Your task to perform on an android device: move an email to a new category in the gmail app Image 0: 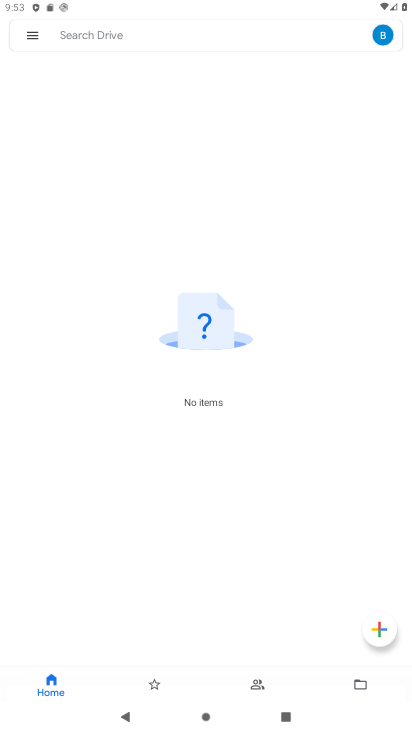
Step 0: press home button
Your task to perform on an android device: move an email to a new category in the gmail app Image 1: 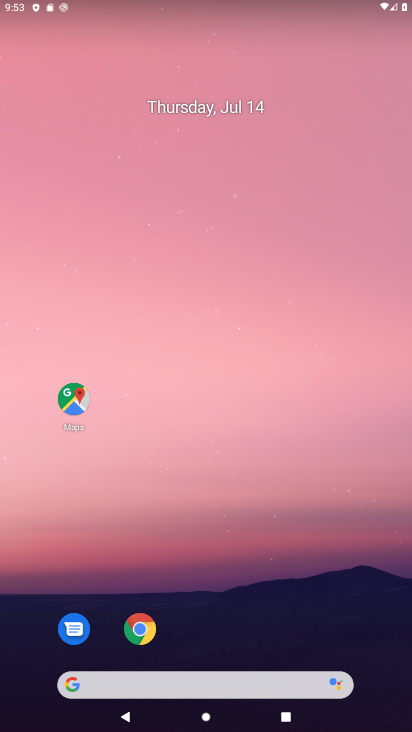
Step 1: drag from (222, 616) to (227, 105)
Your task to perform on an android device: move an email to a new category in the gmail app Image 2: 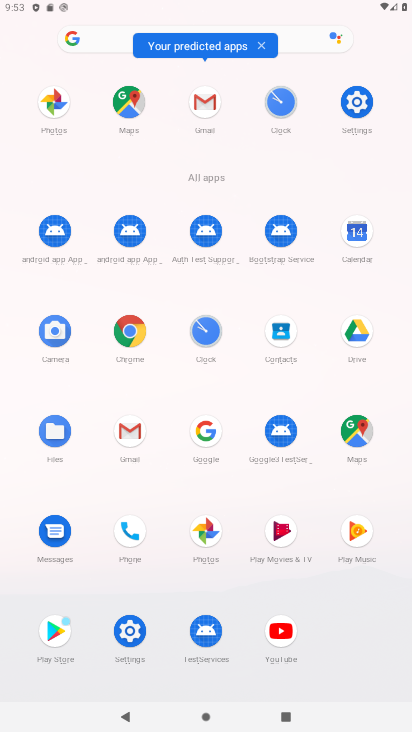
Step 2: click (133, 432)
Your task to perform on an android device: move an email to a new category in the gmail app Image 3: 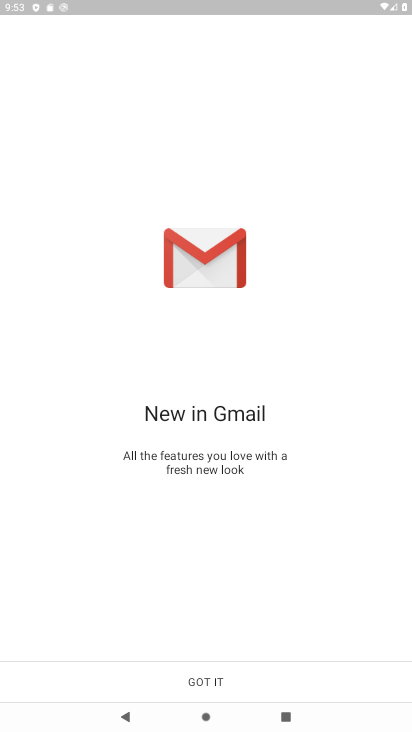
Step 3: click (223, 682)
Your task to perform on an android device: move an email to a new category in the gmail app Image 4: 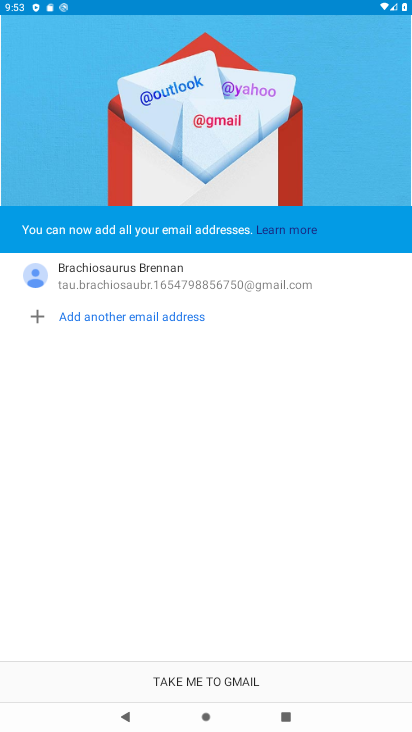
Step 4: click (223, 682)
Your task to perform on an android device: move an email to a new category in the gmail app Image 5: 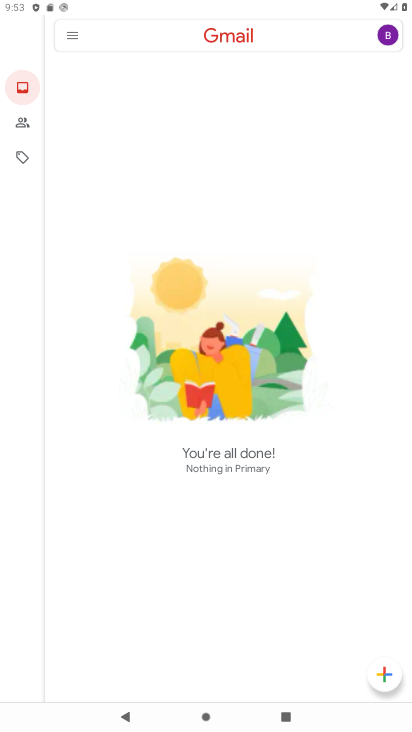
Step 5: click (28, 40)
Your task to perform on an android device: move an email to a new category in the gmail app Image 6: 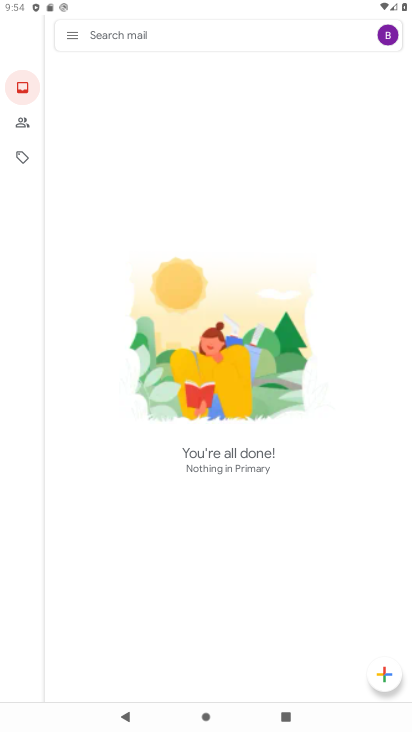
Step 6: click (74, 36)
Your task to perform on an android device: move an email to a new category in the gmail app Image 7: 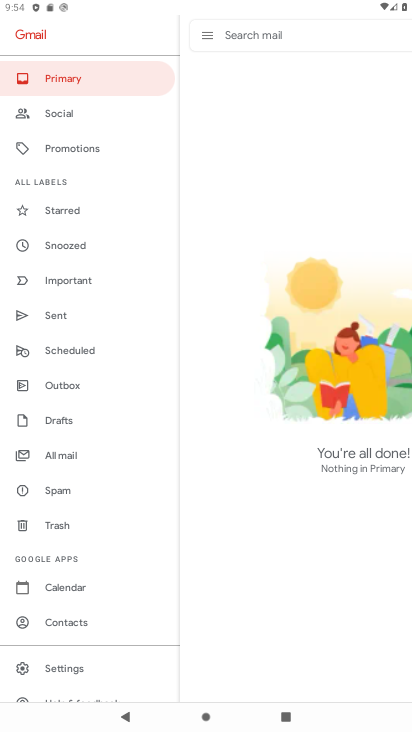
Step 7: click (63, 452)
Your task to perform on an android device: move an email to a new category in the gmail app Image 8: 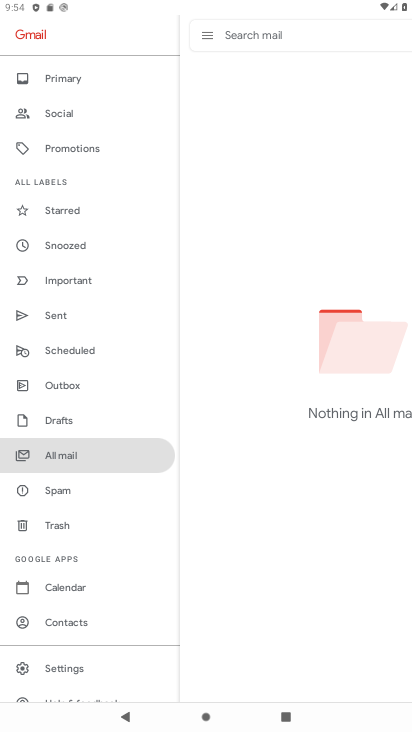
Step 8: task complete